Your task to perform on an android device: toggle wifi Image 0: 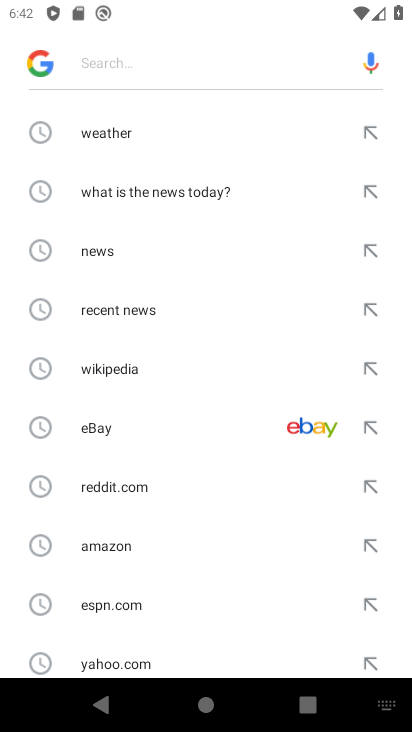
Step 0: press home button
Your task to perform on an android device: toggle wifi Image 1: 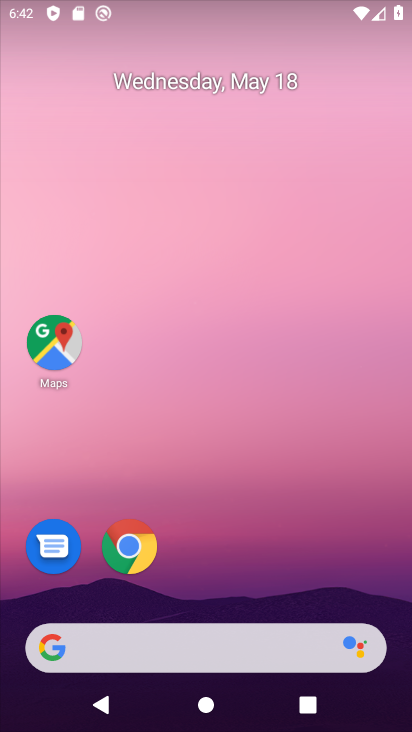
Step 1: drag from (190, 2) to (229, 394)
Your task to perform on an android device: toggle wifi Image 2: 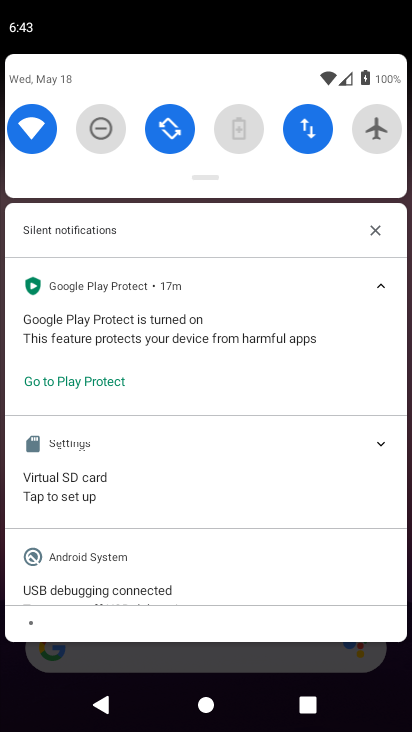
Step 2: click (26, 123)
Your task to perform on an android device: toggle wifi Image 3: 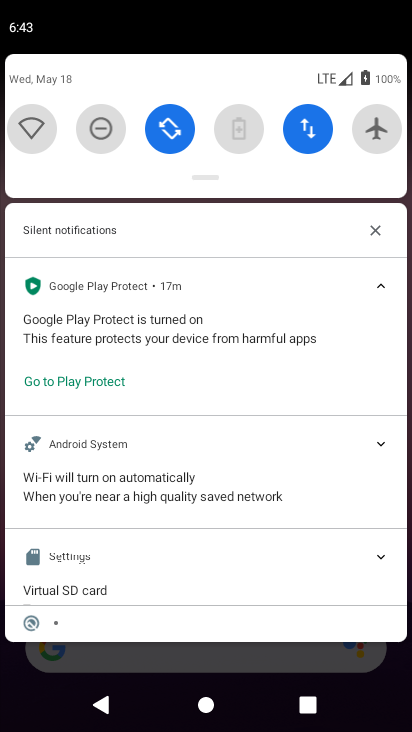
Step 3: task complete